Your task to perform on an android device: clear all cookies in the chrome app Image 0: 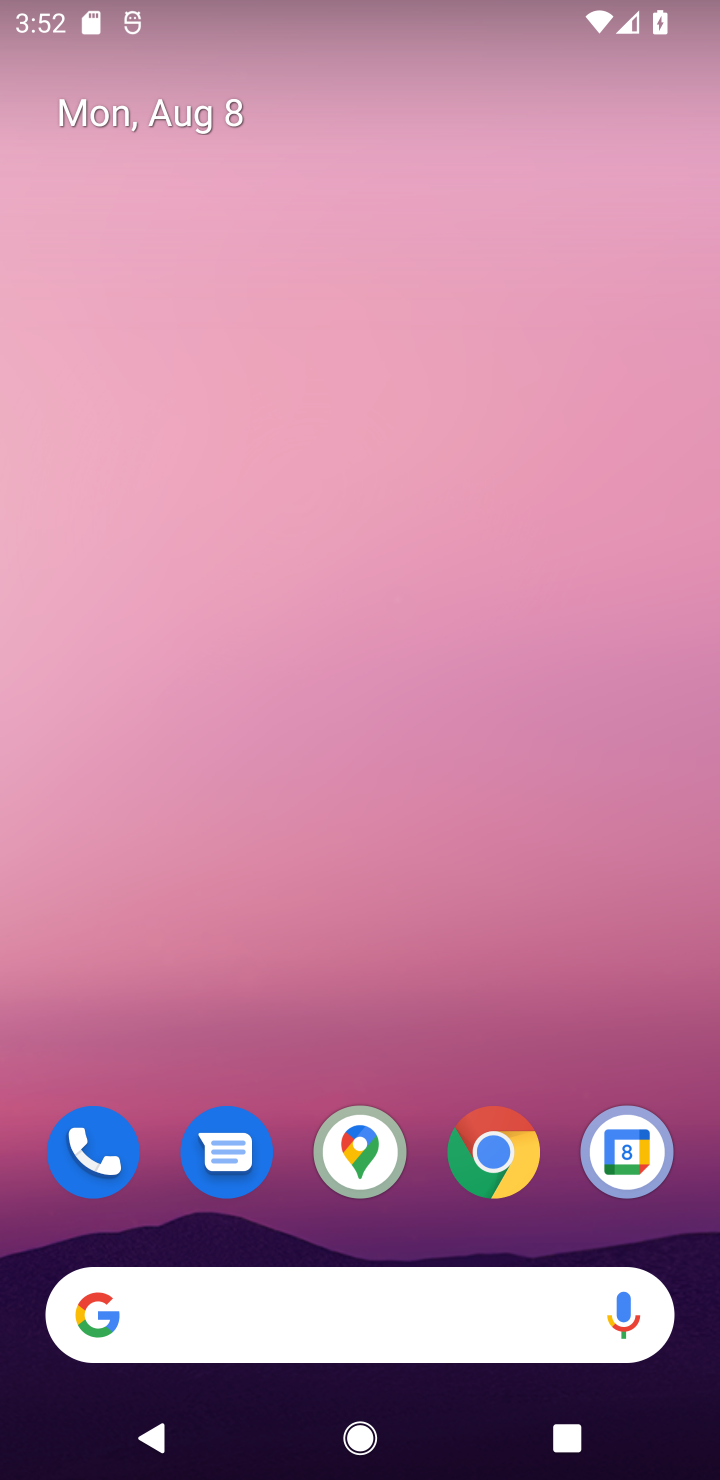
Step 0: click (498, 1162)
Your task to perform on an android device: clear all cookies in the chrome app Image 1: 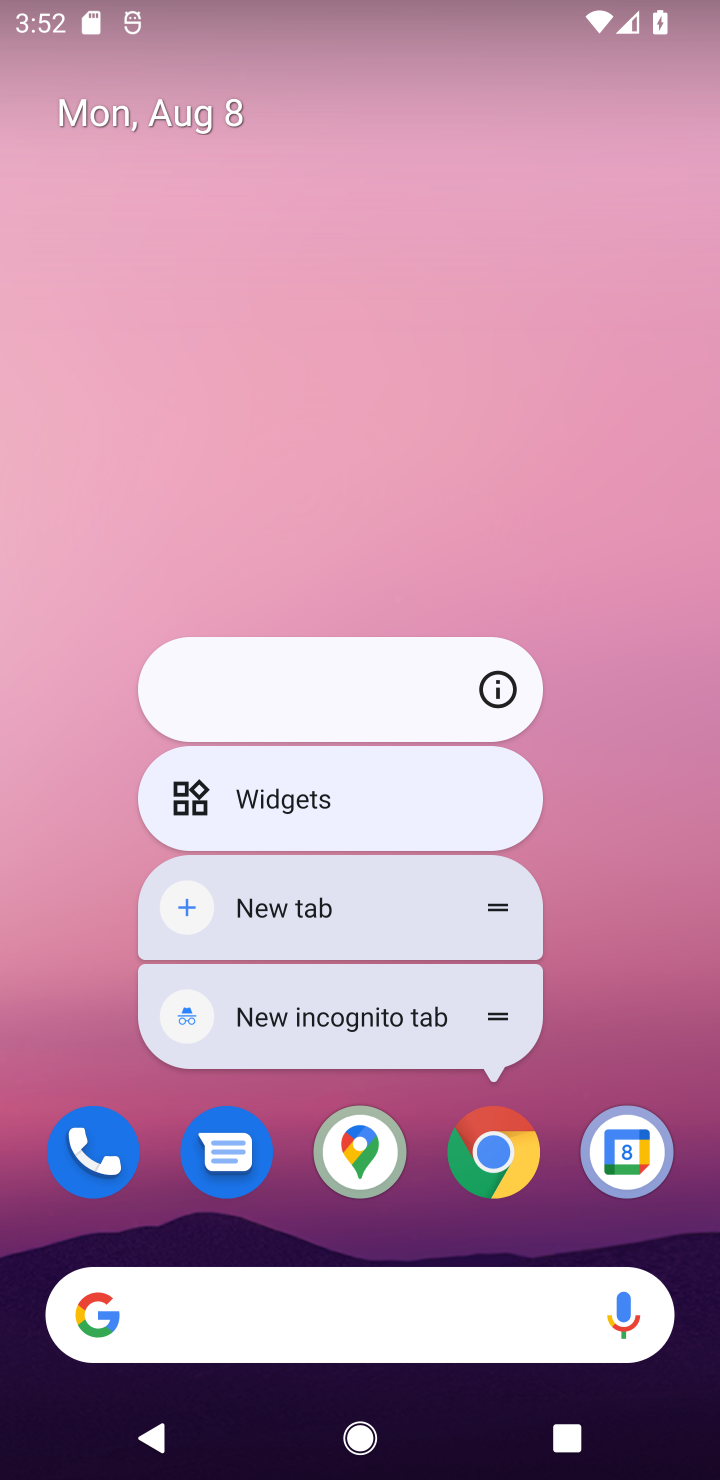
Step 1: click (498, 1143)
Your task to perform on an android device: clear all cookies in the chrome app Image 2: 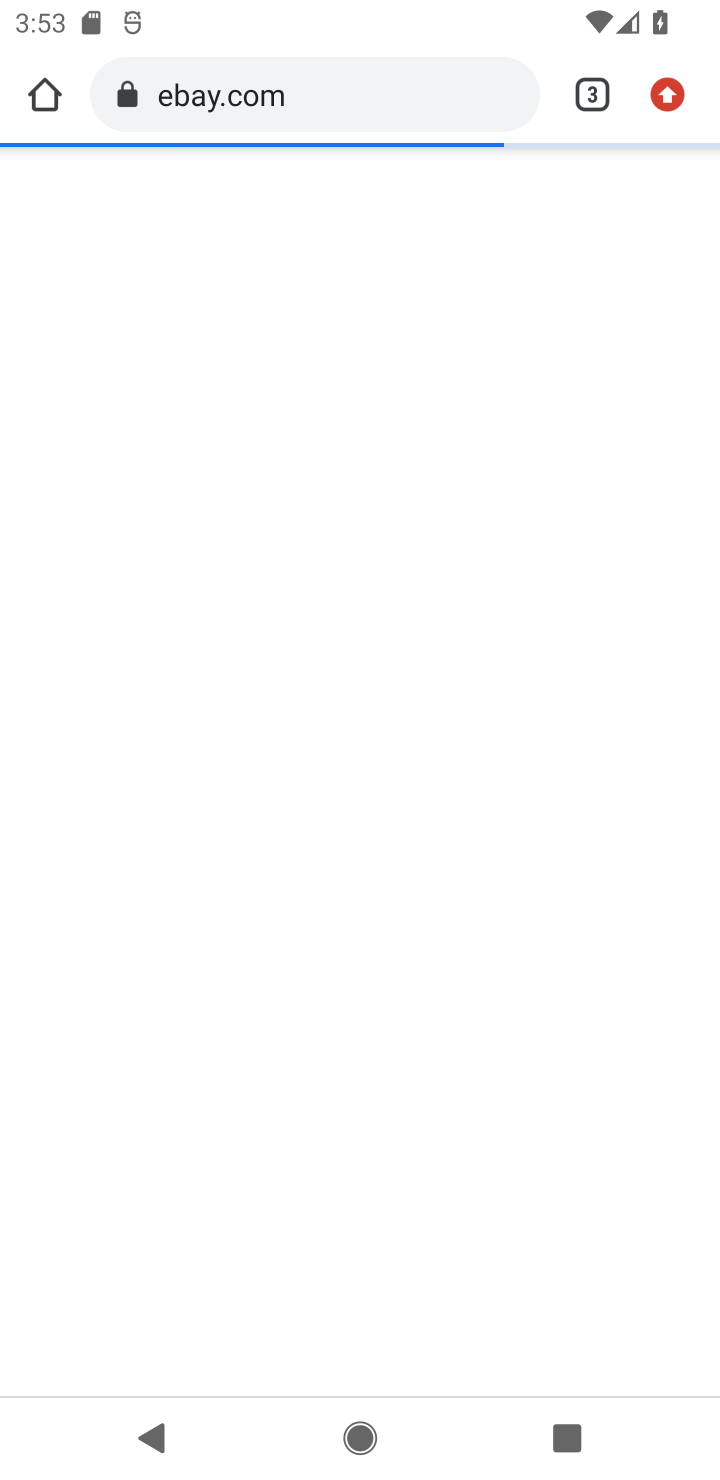
Step 2: drag from (667, 110) to (372, 514)
Your task to perform on an android device: clear all cookies in the chrome app Image 3: 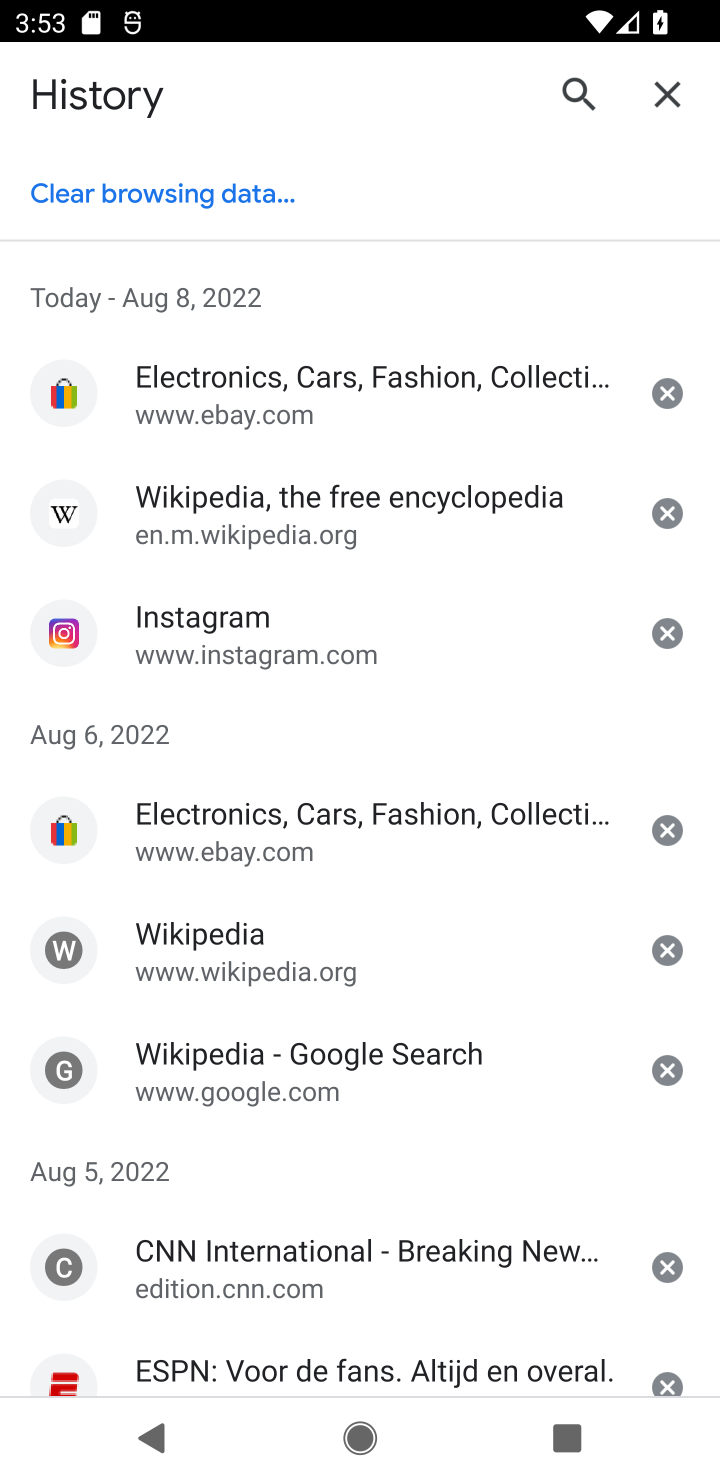
Step 3: click (175, 202)
Your task to perform on an android device: clear all cookies in the chrome app Image 4: 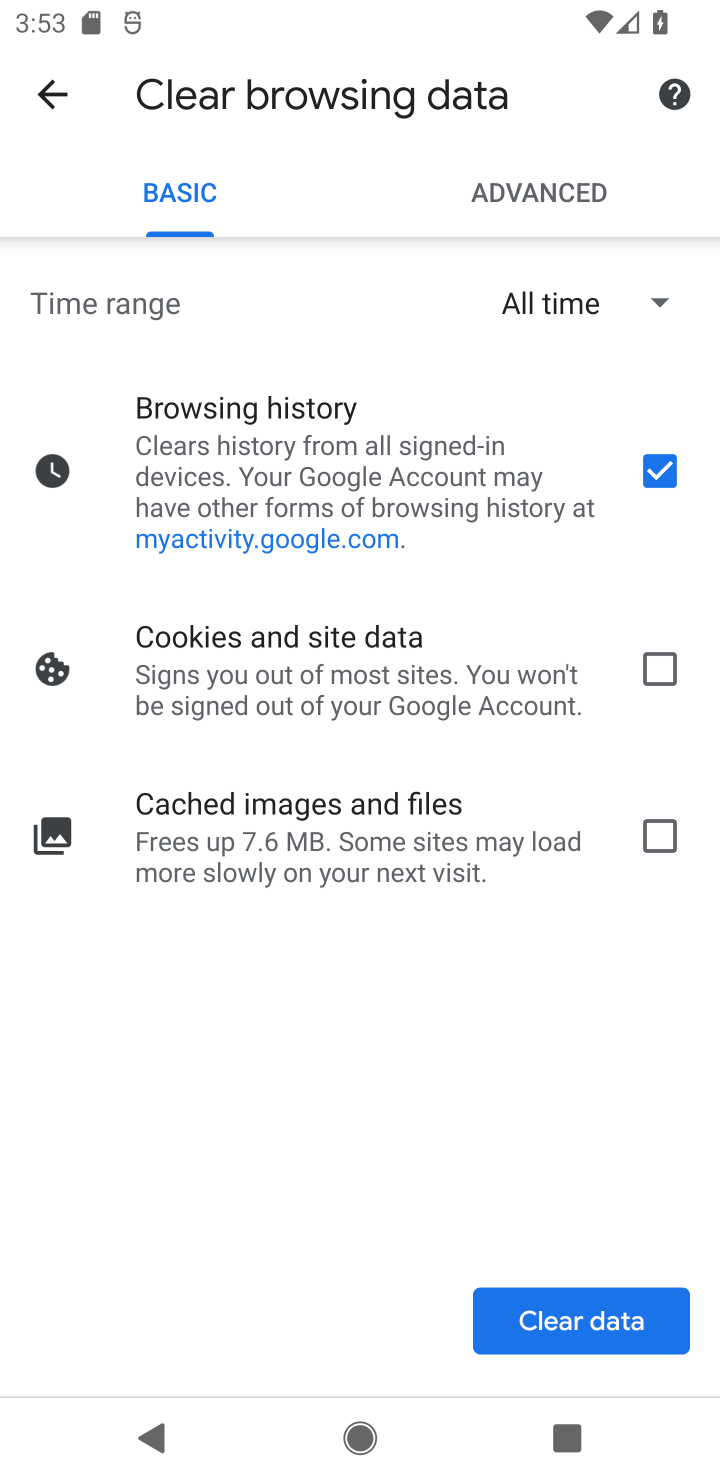
Step 4: click (658, 654)
Your task to perform on an android device: clear all cookies in the chrome app Image 5: 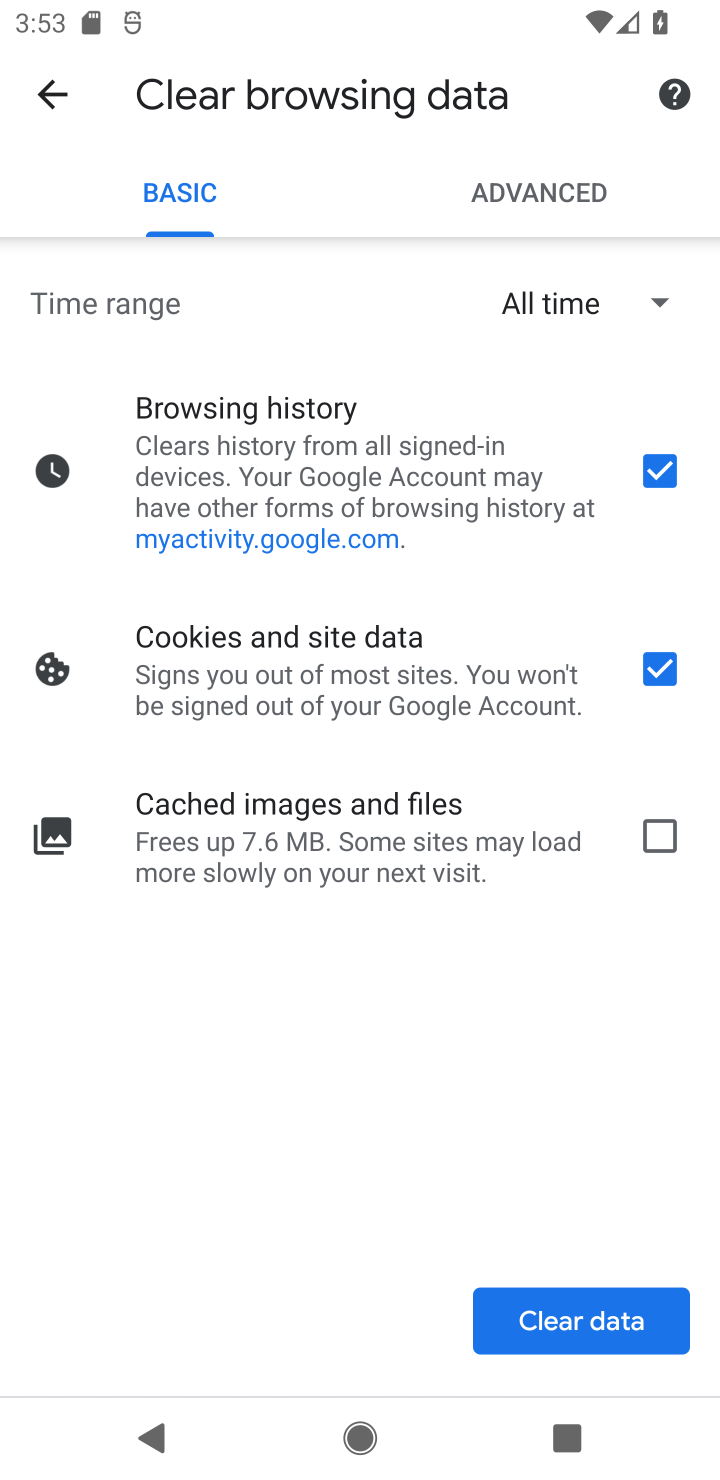
Step 5: click (653, 468)
Your task to perform on an android device: clear all cookies in the chrome app Image 6: 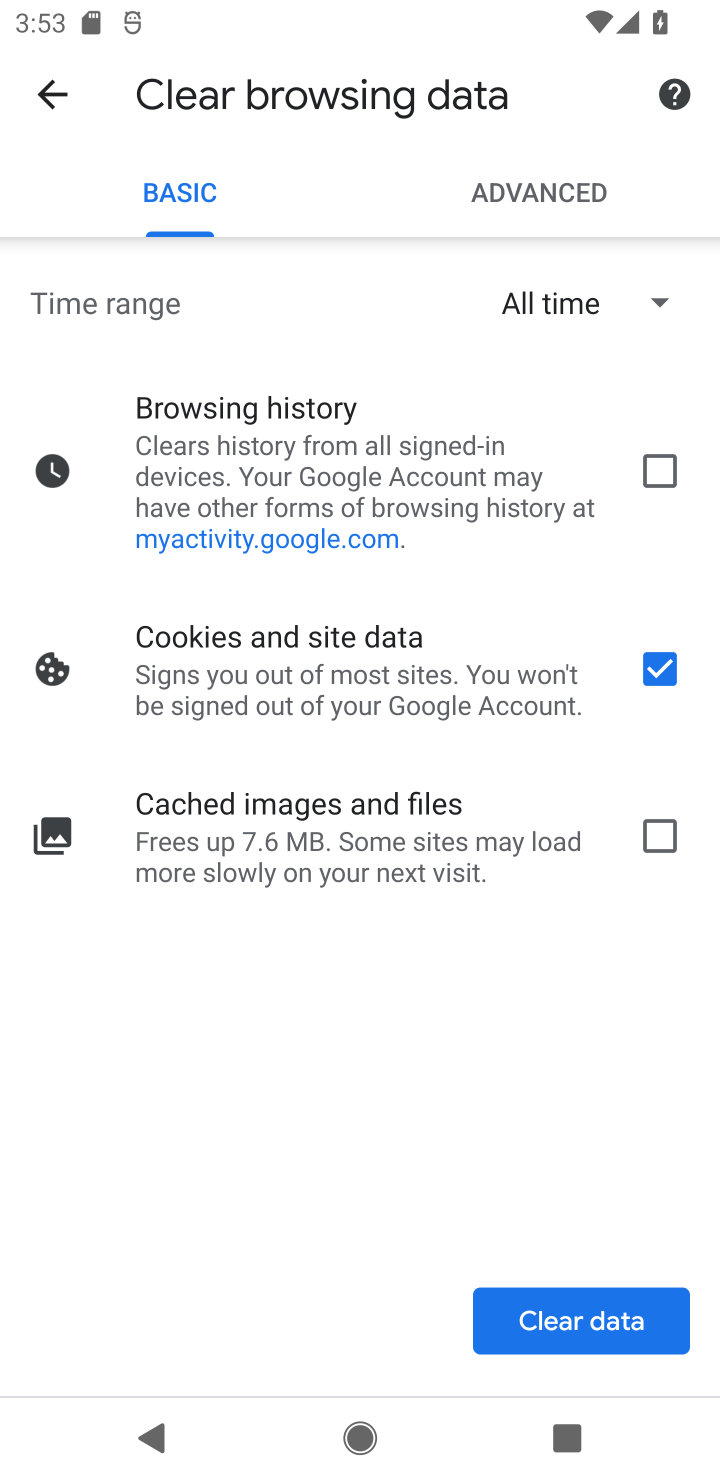
Step 6: click (597, 1318)
Your task to perform on an android device: clear all cookies in the chrome app Image 7: 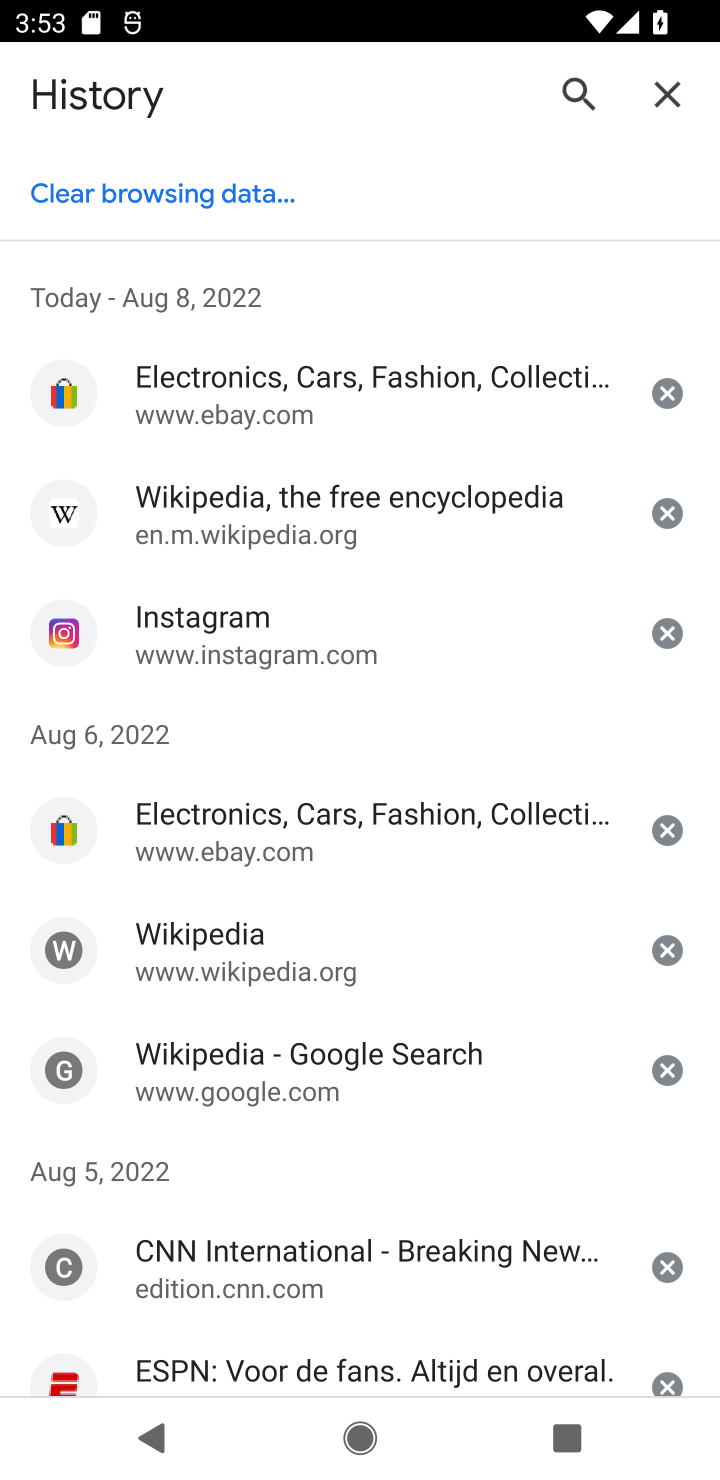
Step 7: task complete